Your task to perform on an android device: Open Chrome and go to settings Image 0: 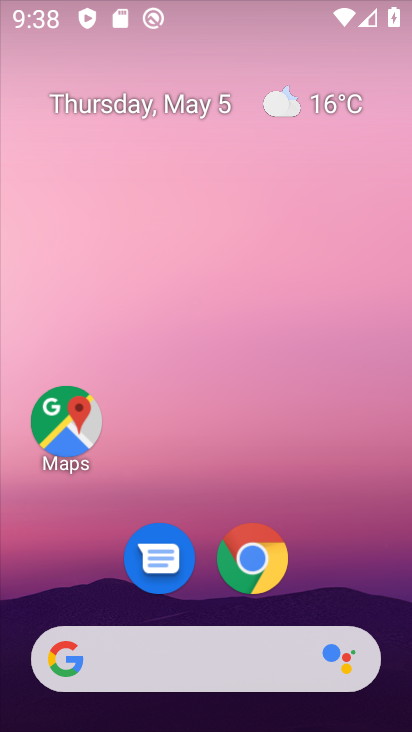
Step 0: drag from (340, 567) to (297, 254)
Your task to perform on an android device: Open Chrome and go to settings Image 1: 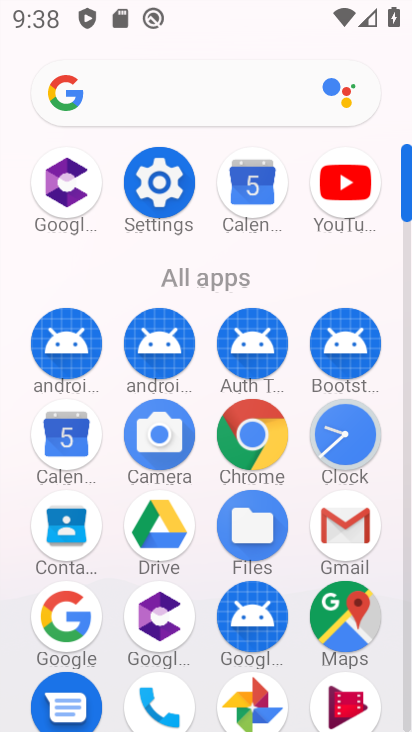
Step 1: click (265, 437)
Your task to perform on an android device: Open Chrome and go to settings Image 2: 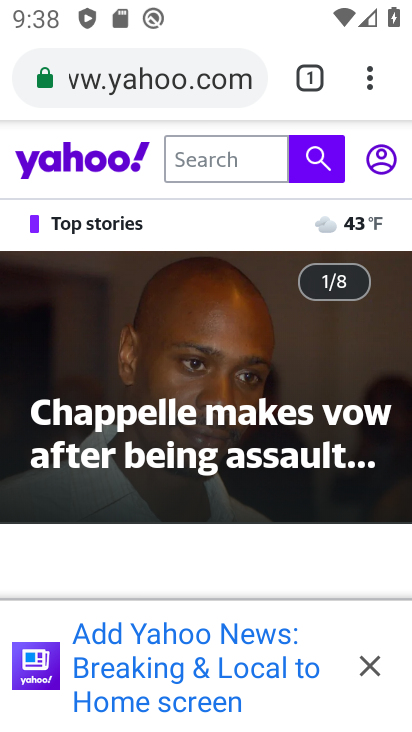
Step 2: click (373, 113)
Your task to perform on an android device: Open Chrome and go to settings Image 3: 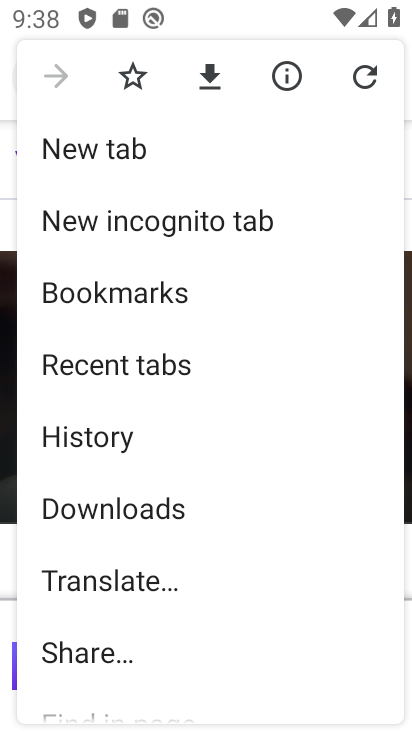
Step 3: drag from (176, 641) to (143, 314)
Your task to perform on an android device: Open Chrome and go to settings Image 4: 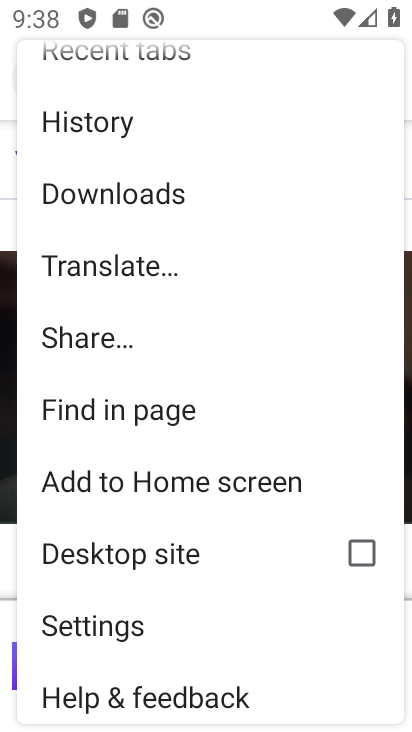
Step 4: click (155, 617)
Your task to perform on an android device: Open Chrome and go to settings Image 5: 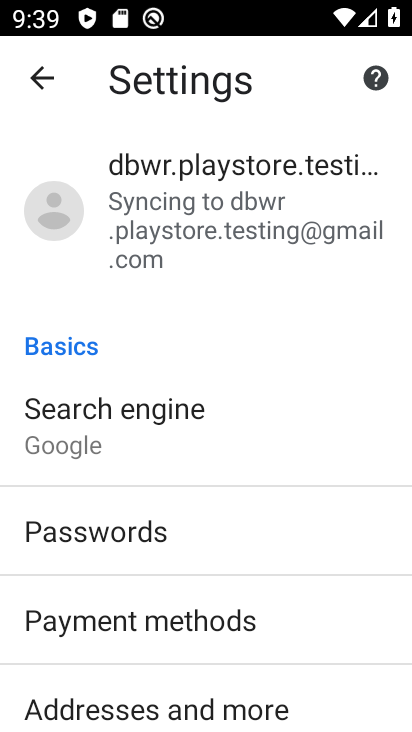
Step 5: task complete